Your task to perform on an android device: delete browsing data in the chrome app Image 0: 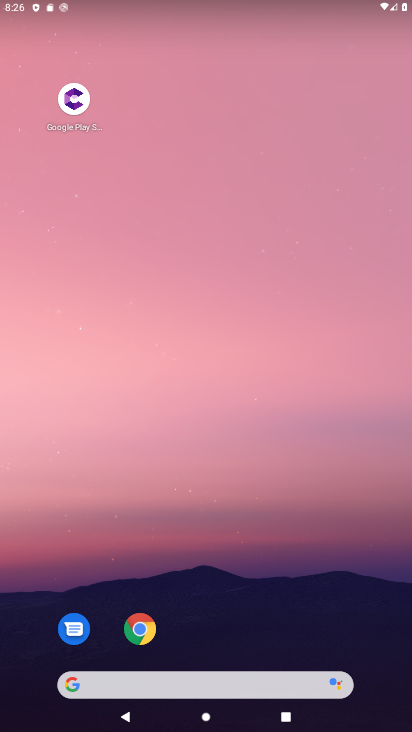
Step 0: drag from (284, 624) to (234, 134)
Your task to perform on an android device: delete browsing data in the chrome app Image 1: 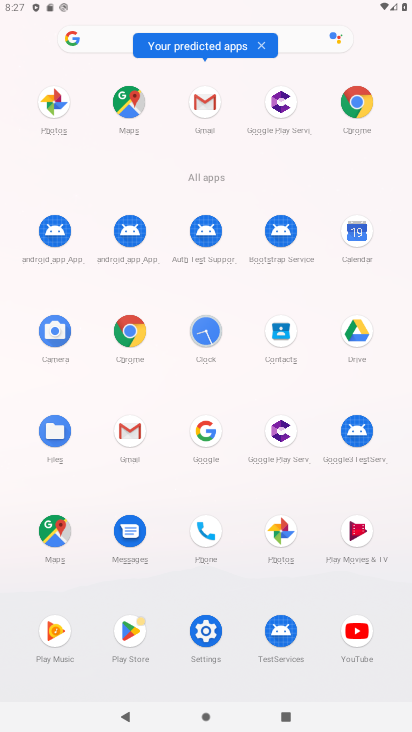
Step 1: click (350, 110)
Your task to perform on an android device: delete browsing data in the chrome app Image 2: 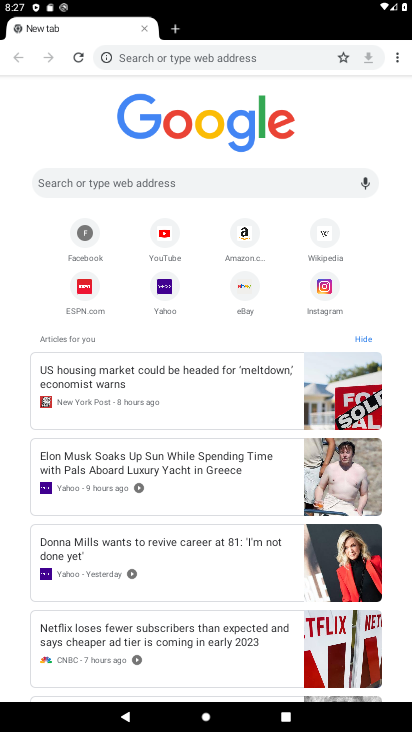
Step 2: click (404, 57)
Your task to perform on an android device: delete browsing data in the chrome app Image 3: 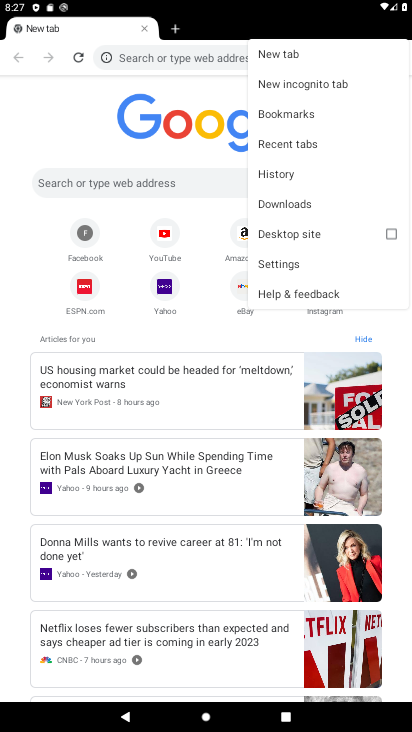
Step 3: click (327, 177)
Your task to perform on an android device: delete browsing data in the chrome app Image 4: 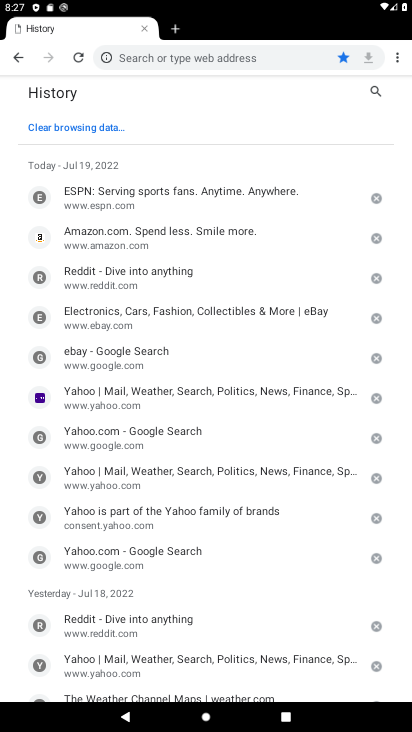
Step 4: click (55, 129)
Your task to perform on an android device: delete browsing data in the chrome app Image 5: 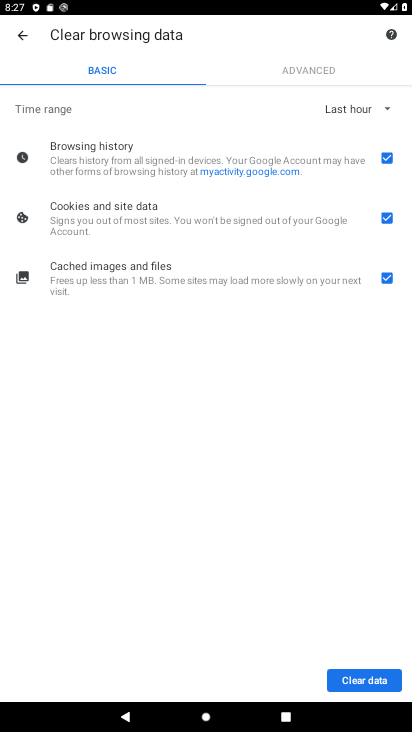
Step 5: click (366, 675)
Your task to perform on an android device: delete browsing data in the chrome app Image 6: 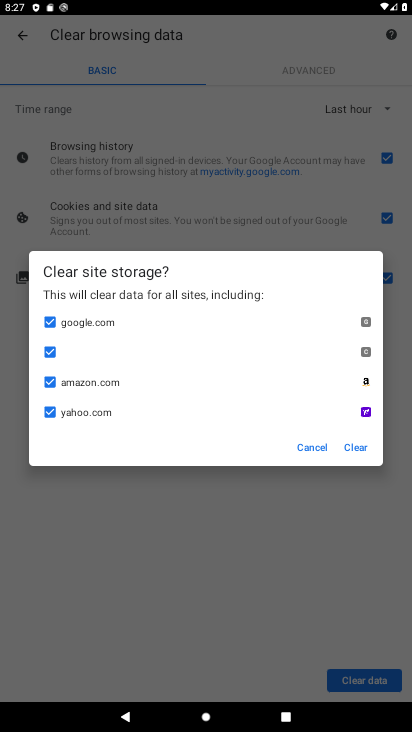
Step 6: click (357, 445)
Your task to perform on an android device: delete browsing data in the chrome app Image 7: 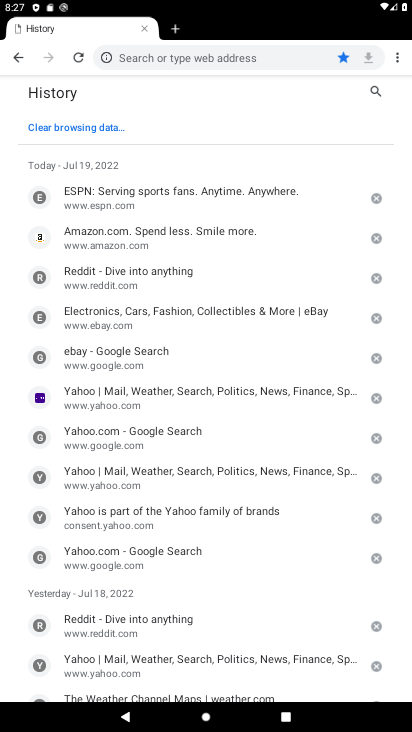
Step 7: task complete